Your task to perform on an android device: Search for seafood restaurants on Google Maps Image 0: 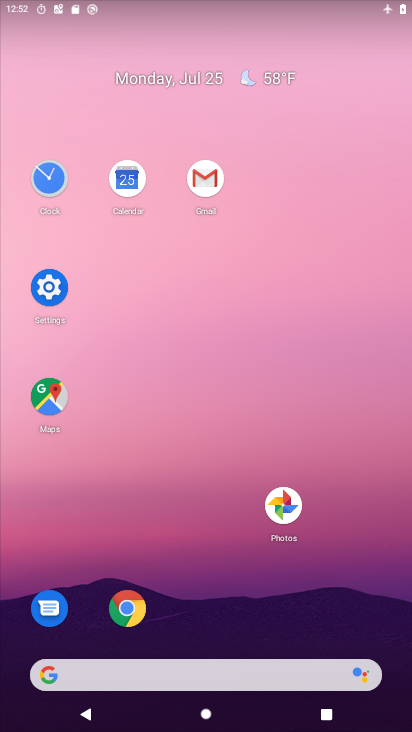
Step 0: click (43, 403)
Your task to perform on an android device: Search for seafood restaurants on Google Maps Image 1: 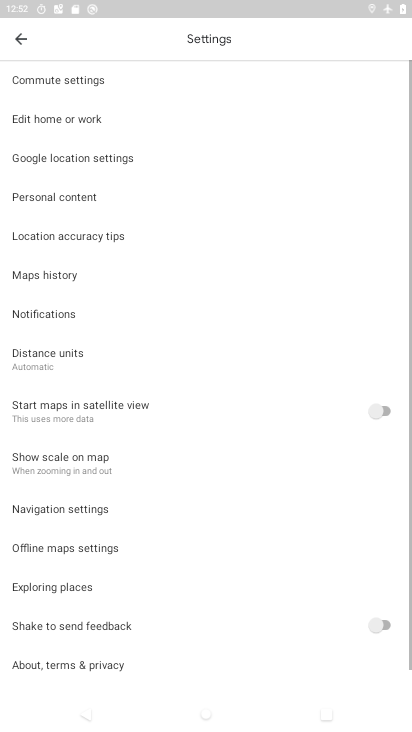
Step 1: click (28, 39)
Your task to perform on an android device: Search for seafood restaurants on Google Maps Image 2: 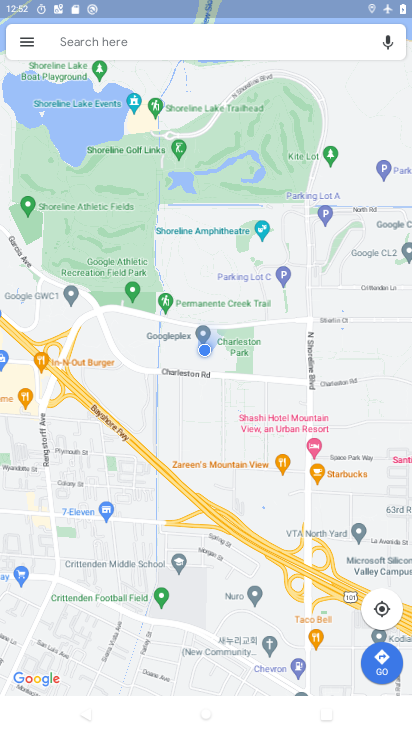
Step 2: click (140, 40)
Your task to perform on an android device: Search for seafood restaurants on Google Maps Image 3: 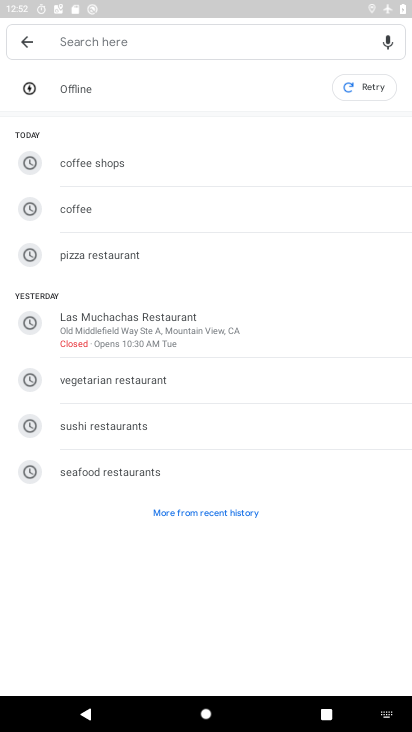
Step 3: click (127, 476)
Your task to perform on an android device: Search for seafood restaurants on Google Maps Image 4: 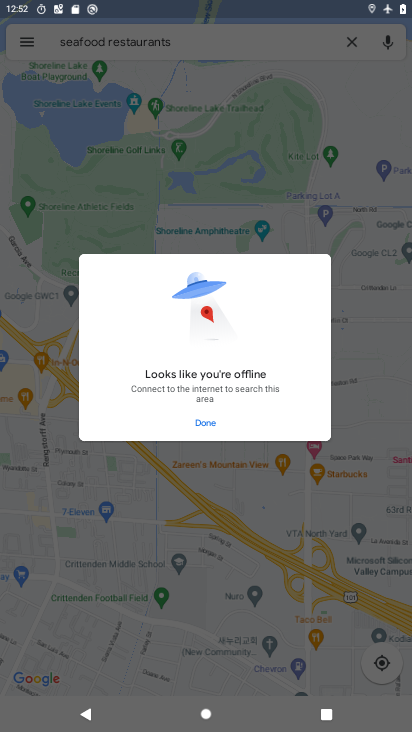
Step 4: click (195, 435)
Your task to perform on an android device: Search for seafood restaurants on Google Maps Image 5: 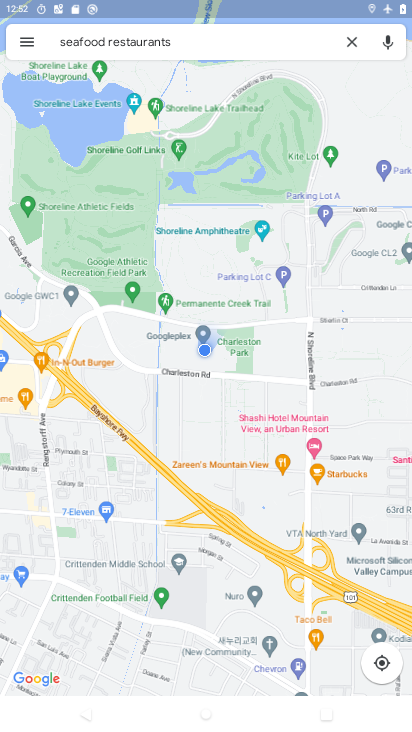
Step 5: task complete